Your task to perform on an android device: toggle translation in the chrome app Image 0: 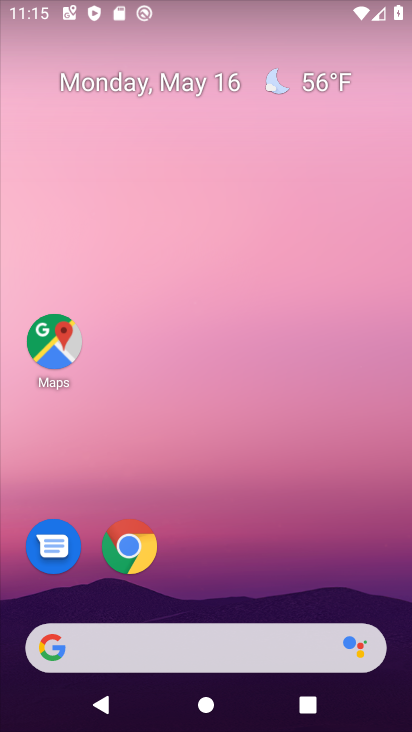
Step 0: drag from (362, 583) to (297, 105)
Your task to perform on an android device: toggle translation in the chrome app Image 1: 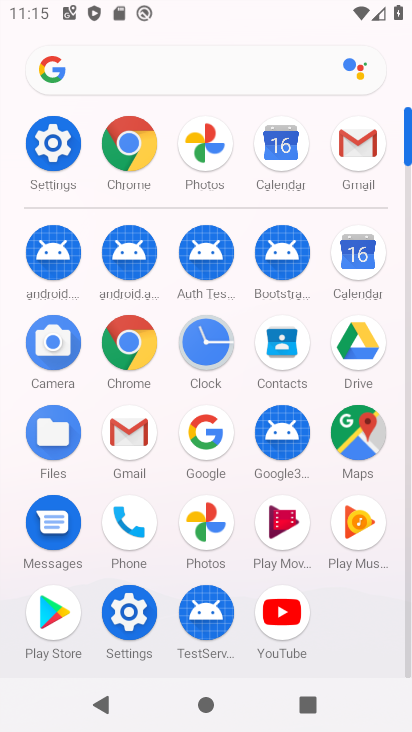
Step 1: click (129, 139)
Your task to perform on an android device: toggle translation in the chrome app Image 2: 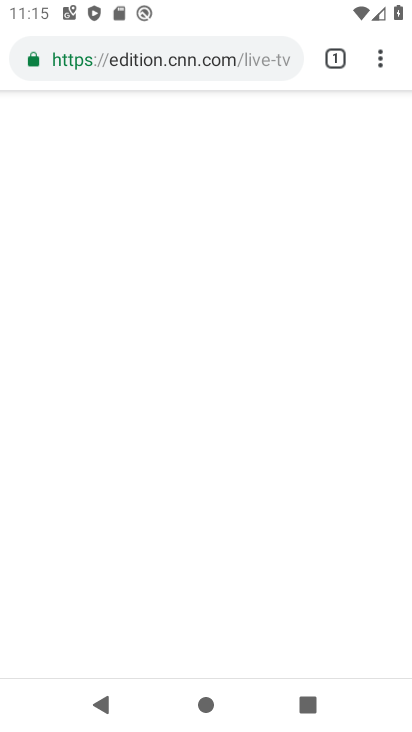
Step 2: drag from (375, 70) to (162, 567)
Your task to perform on an android device: toggle translation in the chrome app Image 3: 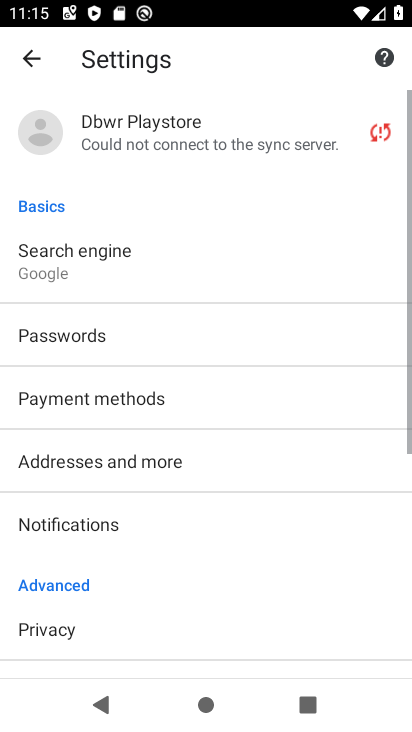
Step 3: drag from (141, 551) to (186, 135)
Your task to perform on an android device: toggle translation in the chrome app Image 4: 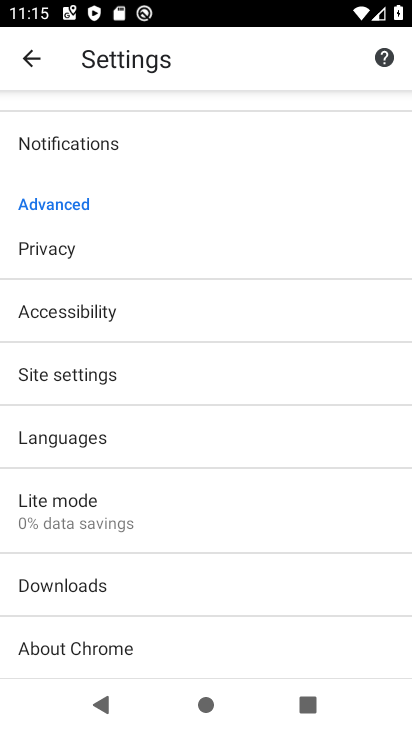
Step 4: click (61, 454)
Your task to perform on an android device: toggle translation in the chrome app Image 5: 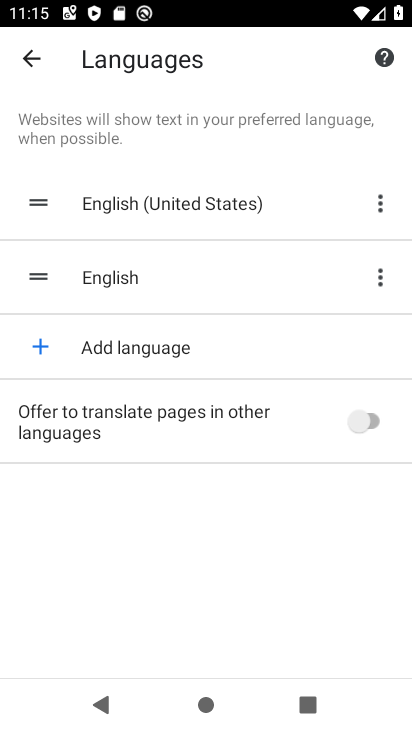
Step 5: click (367, 419)
Your task to perform on an android device: toggle translation in the chrome app Image 6: 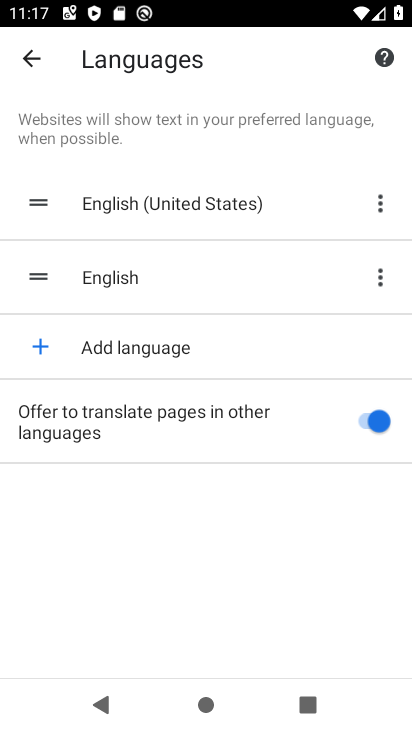
Step 6: task complete